Your task to perform on an android device: Turn off the flashlight Image 0: 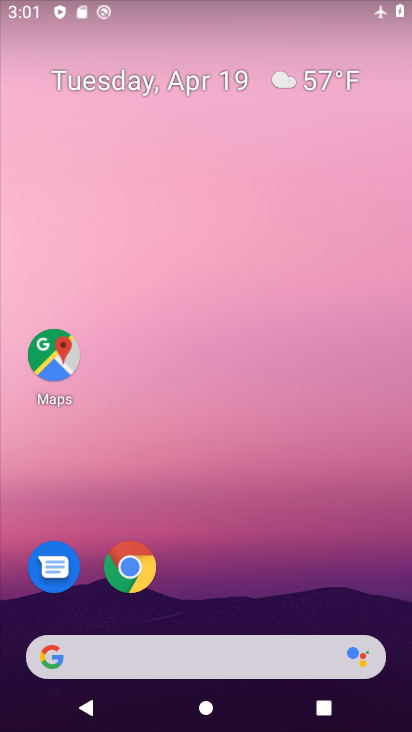
Step 0: drag from (242, 6) to (248, 406)
Your task to perform on an android device: Turn off the flashlight Image 1: 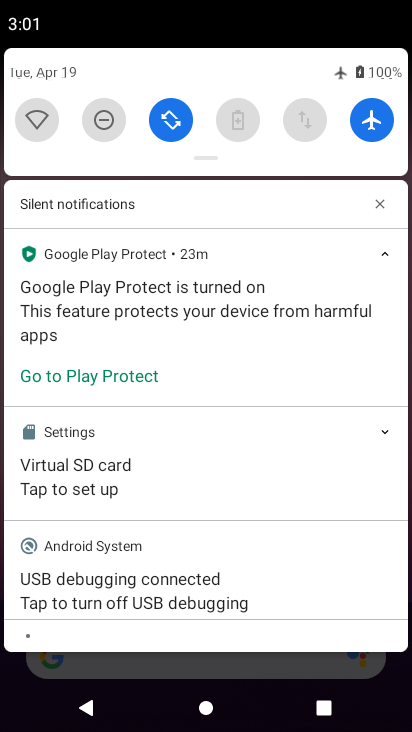
Step 1: drag from (272, 87) to (253, 429)
Your task to perform on an android device: Turn off the flashlight Image 2: 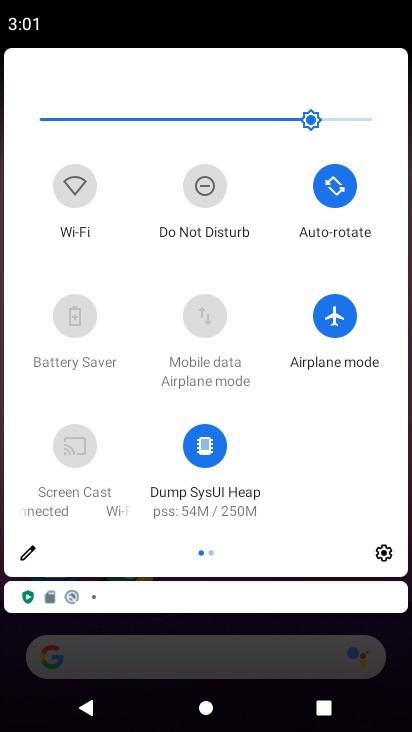
Step 2: click (37, 544)
Your task to perform on an android device: Turn off the flashlight Image 3: 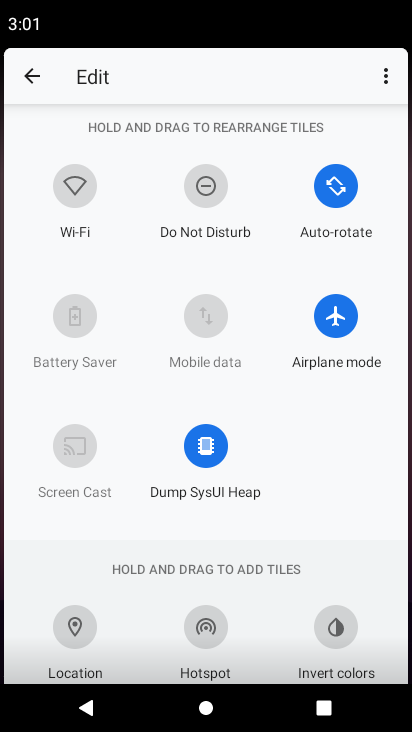
Step 3: task complete